Your task to perform on an android device: Show me popular games on the Play Store Image 0: 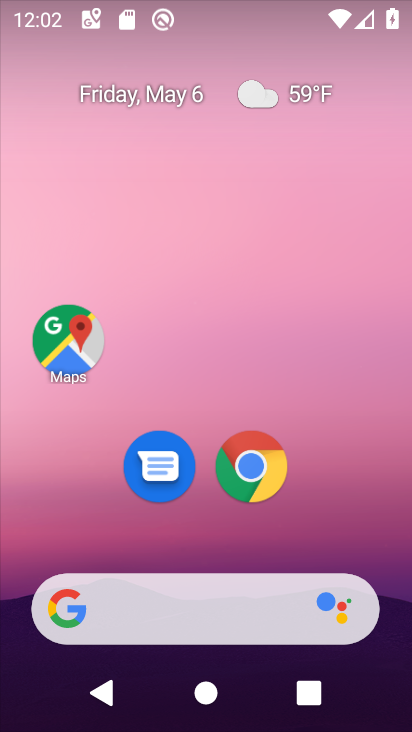
Step 0: drag from (390, 558) to (323, 65)
Your task to perform on an android device: Show me popular games on the Play Store Image 1: 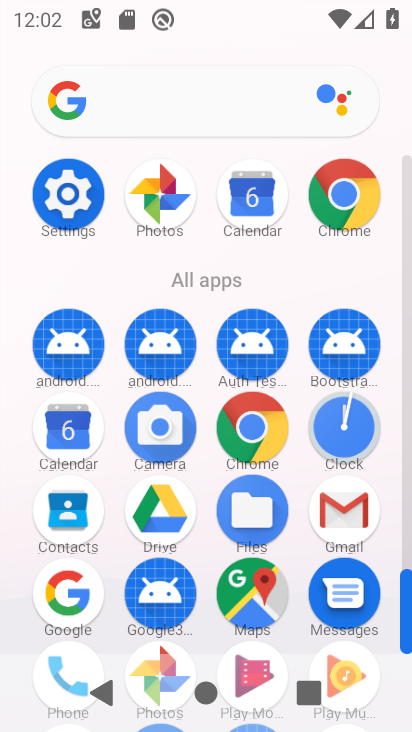
Step 1: drag from (390, 535) to (393, 343)
Your task to perform on an android device: Show me popular games on the Play Store Image 2: 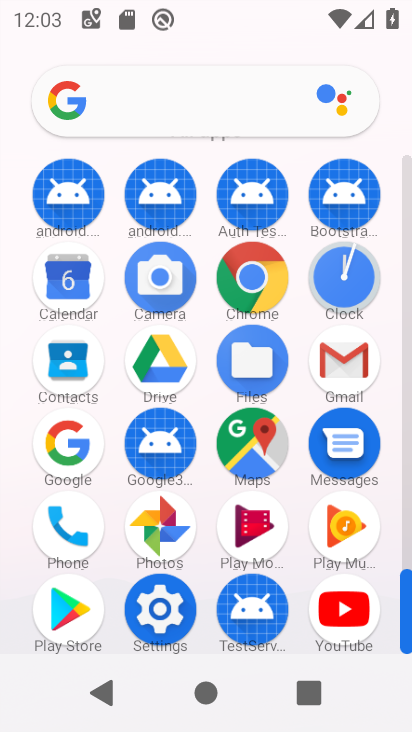
Step 2: click (78, 613)
Your task to perform on an android device: Show me popular games on the Play Store Image 3: 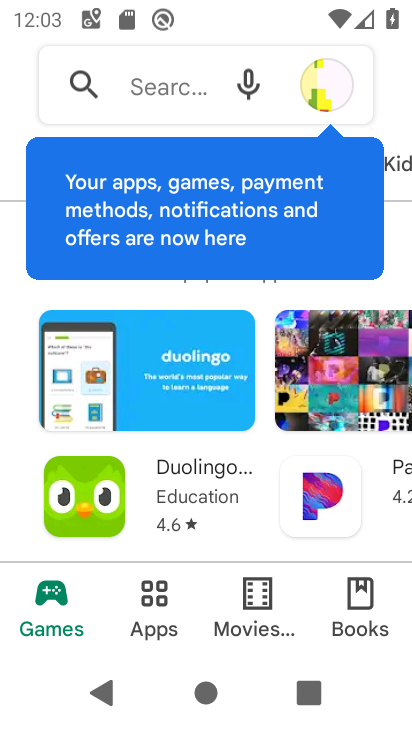
Step 3: click (8, 292)
Your task to perform on an android device: Show me popular games on the Play Store Image 4: 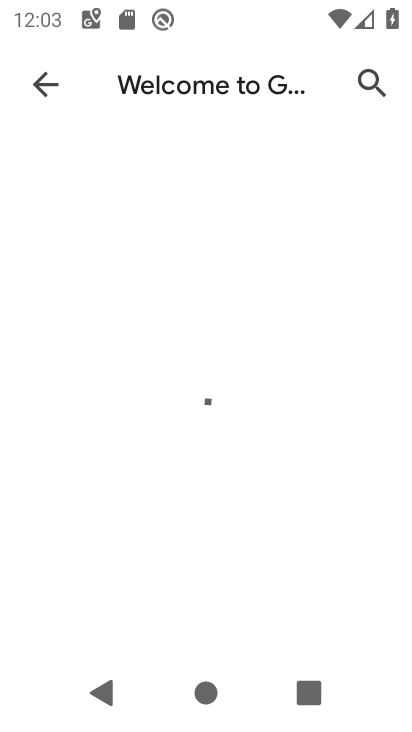
Step 4: click (8, 292)
Your task to perform on an android device: Show me popular games on the Play Store Image 5: 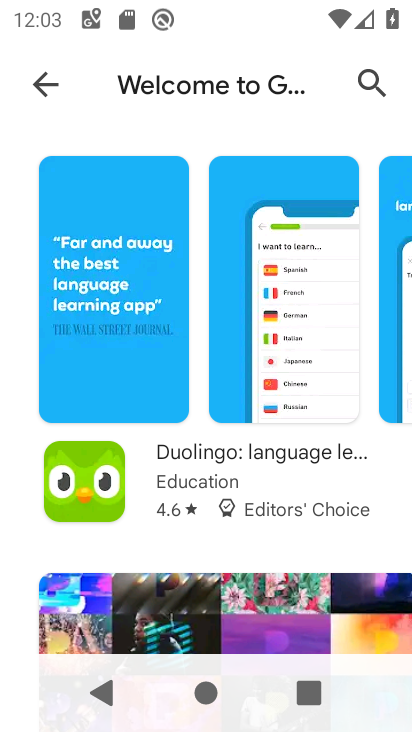
Step 5: task complete